Your task to perform on an android device: Go to wifi settings Image 0: 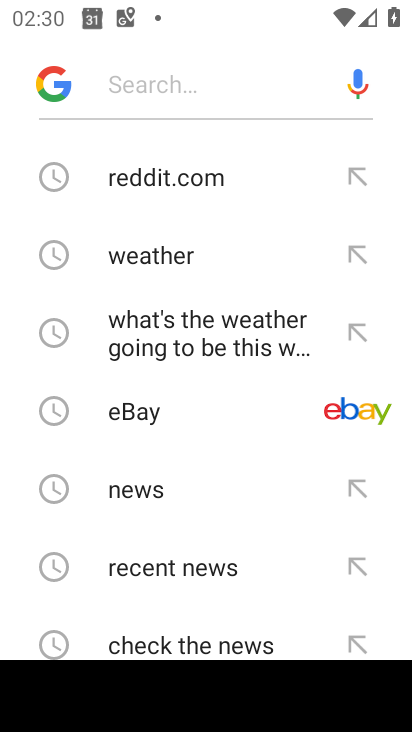
Step 0: press back button
Your task to perform on an android device: Go to wifi settings Image 1: 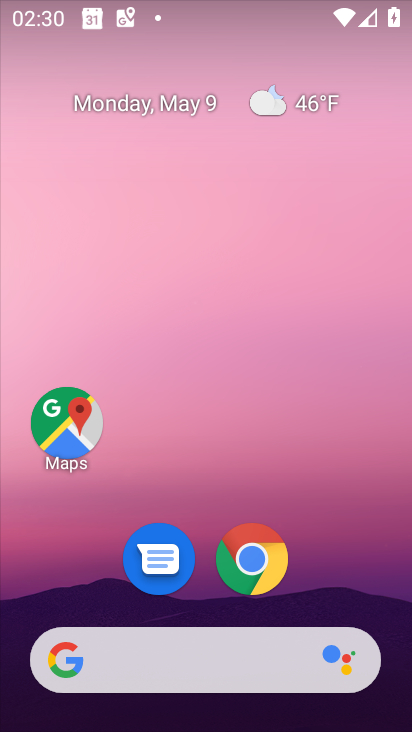
Step 1: drag from (239, 489) to (286, 32)
Your task to perform on an android device: Go to wifi settings Image 2: 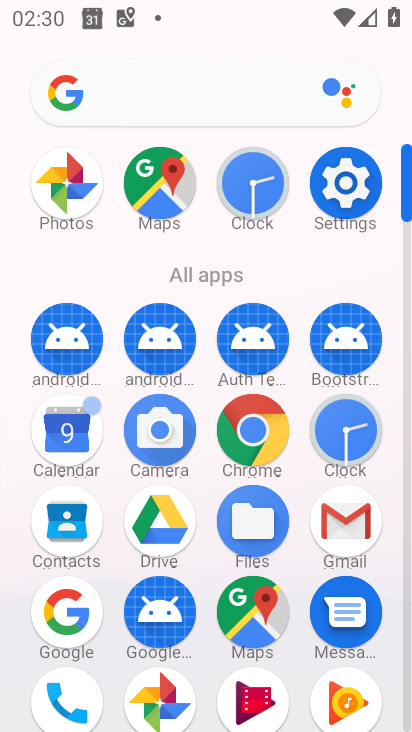
Step 2: click (345, 184)
Your task to perform on an android device: Go to wifi settings Image 3: 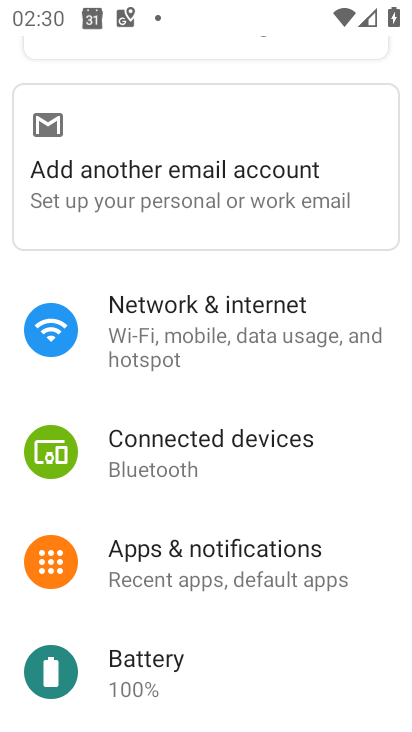
Step 3: click (217, 303)
Your task to perform on an android device: Go to wifi settings Image 4: 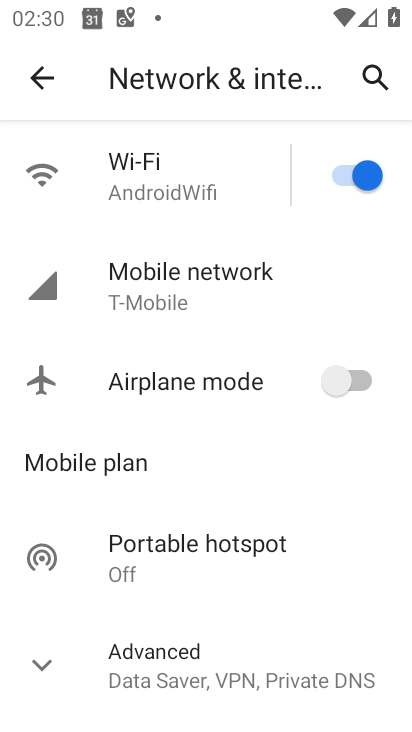
Step 4: click (145, 161)
Your task to perform on an android device: Go to wifi settings Image 5: 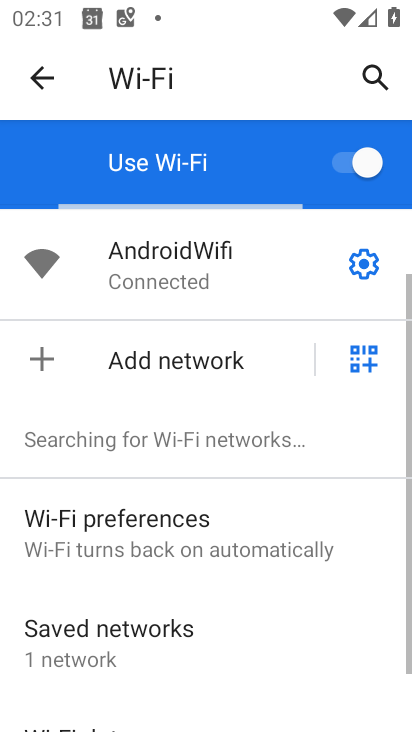
Step 5: click (363, 263)
Your task to perform on an android device: Go to wifi settings Image 6: 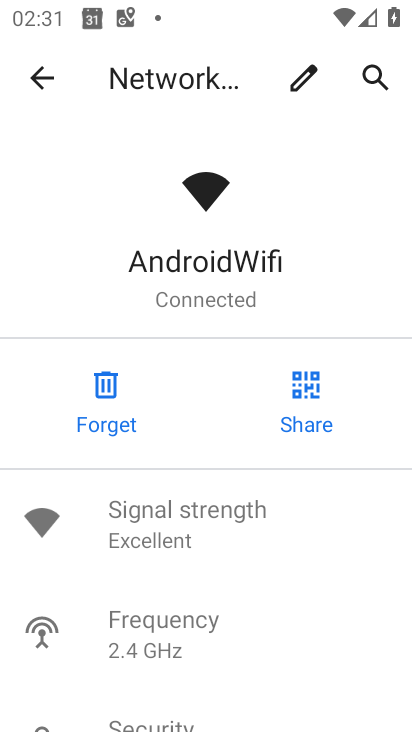
Step 6: task complete